Your task to perform on an android device: open sync settings in chrome Image 0: 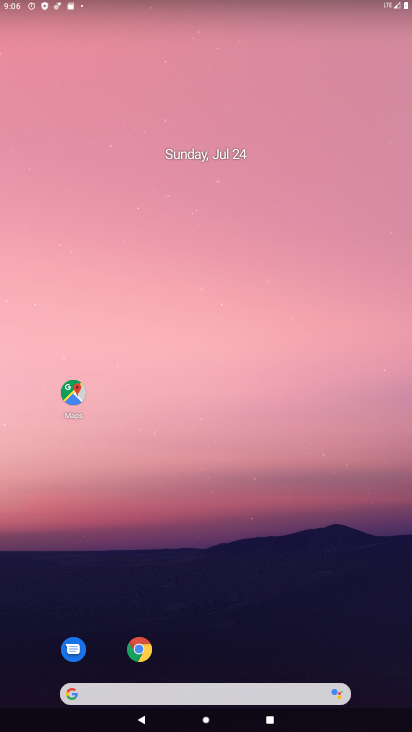
Step 0: click (134, 651)
Your task to perform on an android device: open sync settings in chrome Image 1: 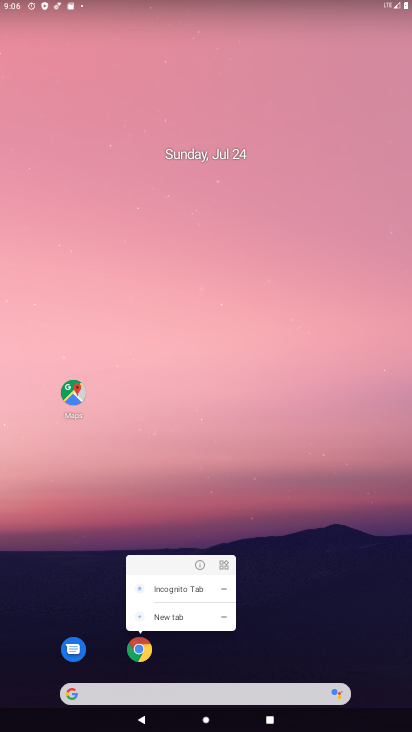
Step 1: click (138, 647)
Your task to perform on an android device: open sync settings in chrome Image 2: 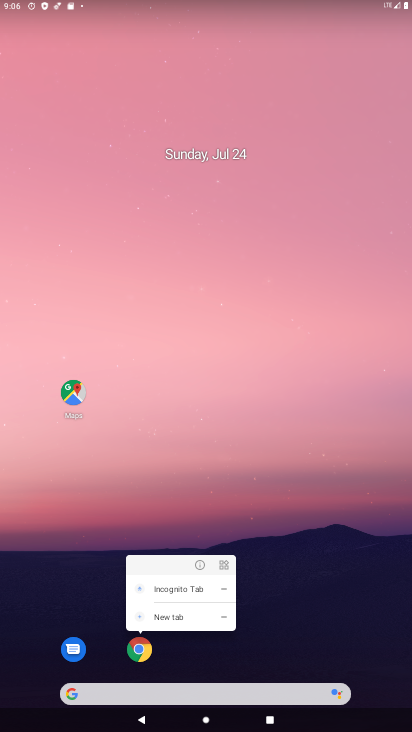
Step 2: click (138, 653)
Your task to perform on an android device: open sync settings in chrome Image 3: 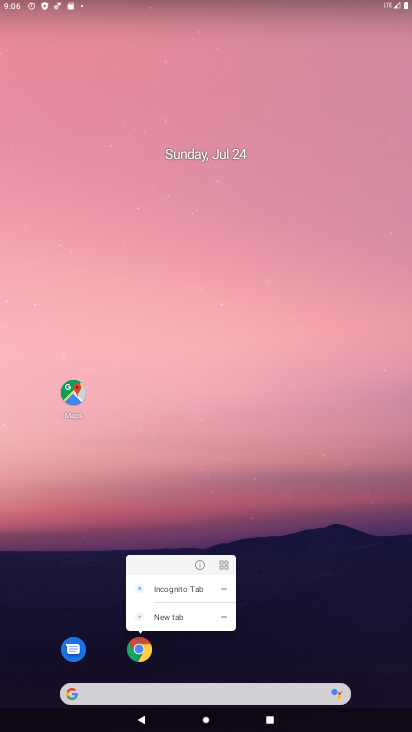
Step 3: click (139, 654)
Your task to perform on an android device: open sync settings in chrome Image 4: 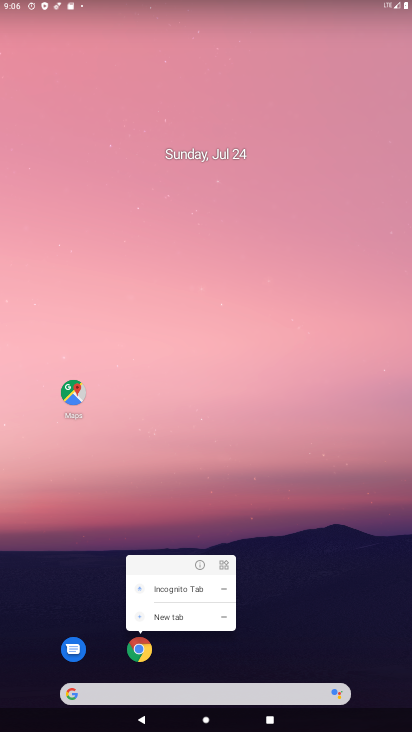
Step 4: click (155, 635)
Your task to perform on an android device: open sync settings in chrome Image 5: 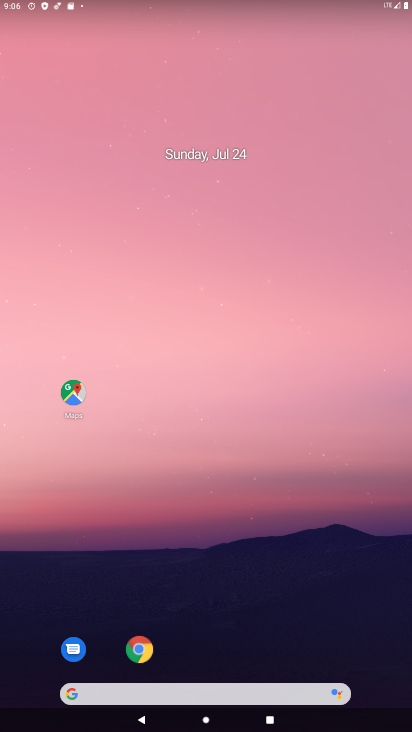
Step 5: click (144, 644)
Your task to perform on an android device: open sync settings in chrome Image 6: 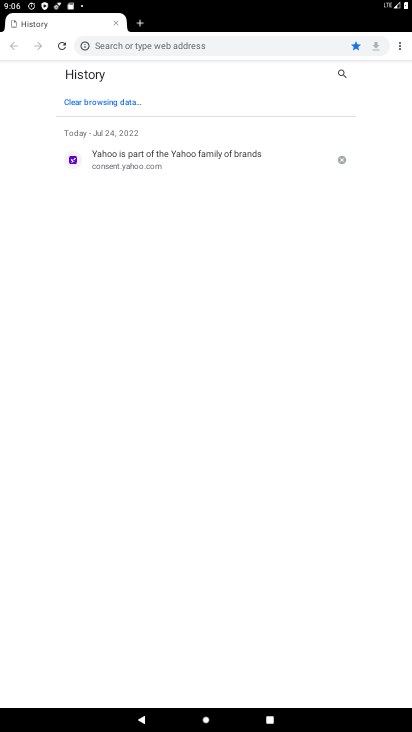
Step 6: click (399, 47)
Your task to perform on an android device: open sync settings in chrome Image 7: 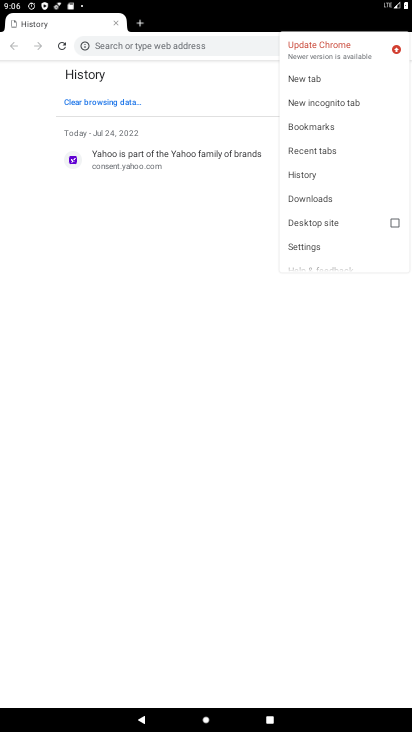
Step 7: click (312, 237)
Your task to perform on an android device: open sync settings in chrome Image 8: 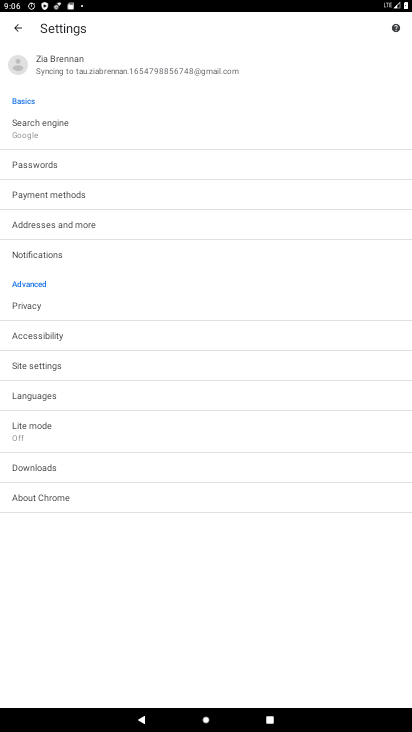
Step 8: click (61, 364)
Your task to perform on an android device: open sync settings in chrome Image 9: 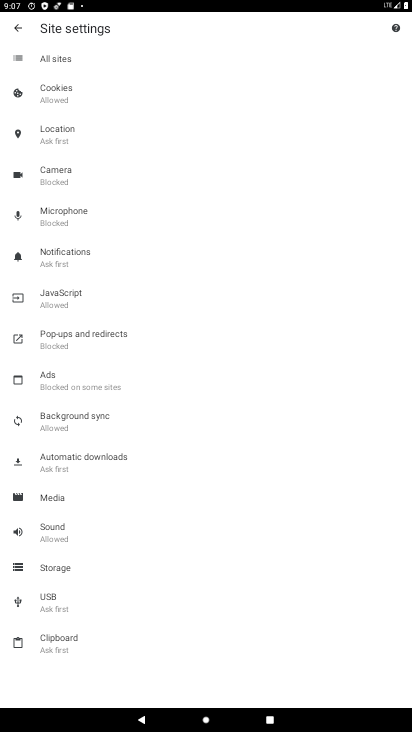
Step 9: click (106, 425)
Your task to perform on an android device: open sync settings in chrome Image 10: 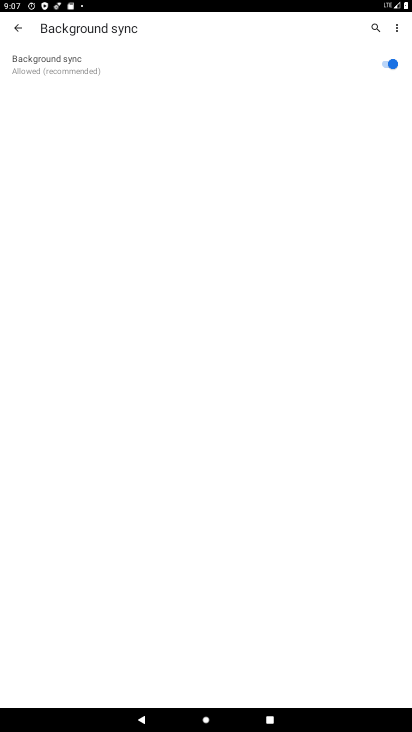
Step 10: task complete